Your task to perform on an android device: Go to sound settings Image 0: 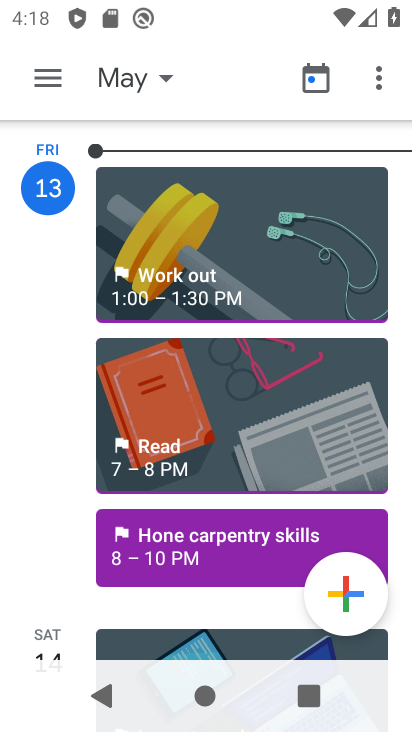
Step 0: press home button
Your task to perform on an android device: Go to sound settings Image 1: 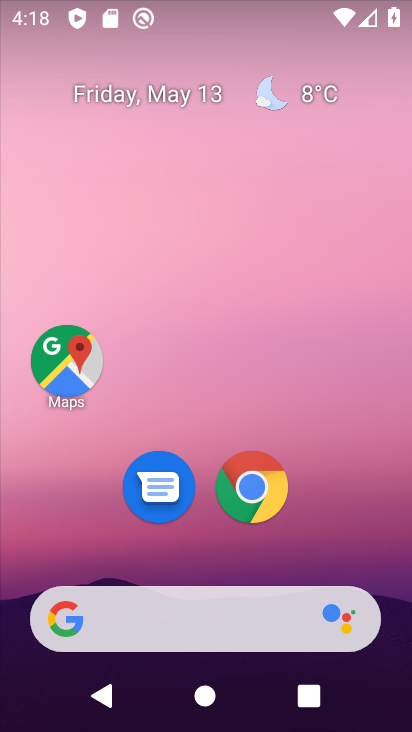
Step 1: drag from (314, 535) to (314, 176)
Your task to perform on an android device: Go to sound settings Image 2: 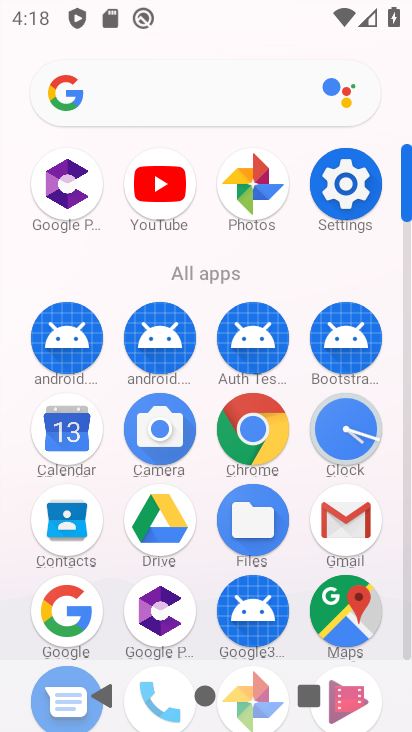
Step 2: click (338, 207)
Your task to perform on an android device: Go to sound settings Image 3: 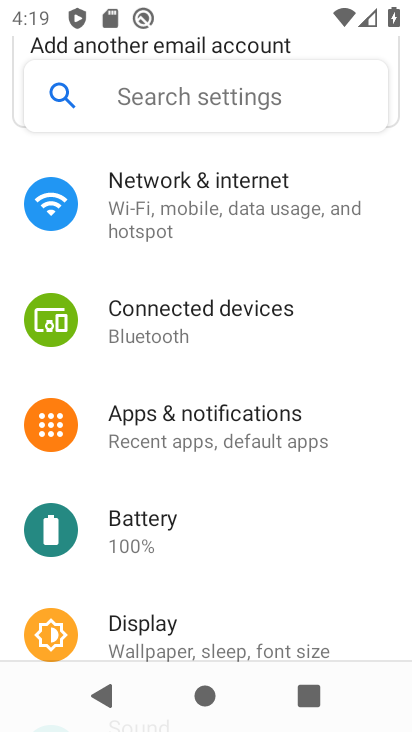
Step 3: task complete